Your task to perform on an android device: install app "eBay: The shopping marketplace" Image 0: 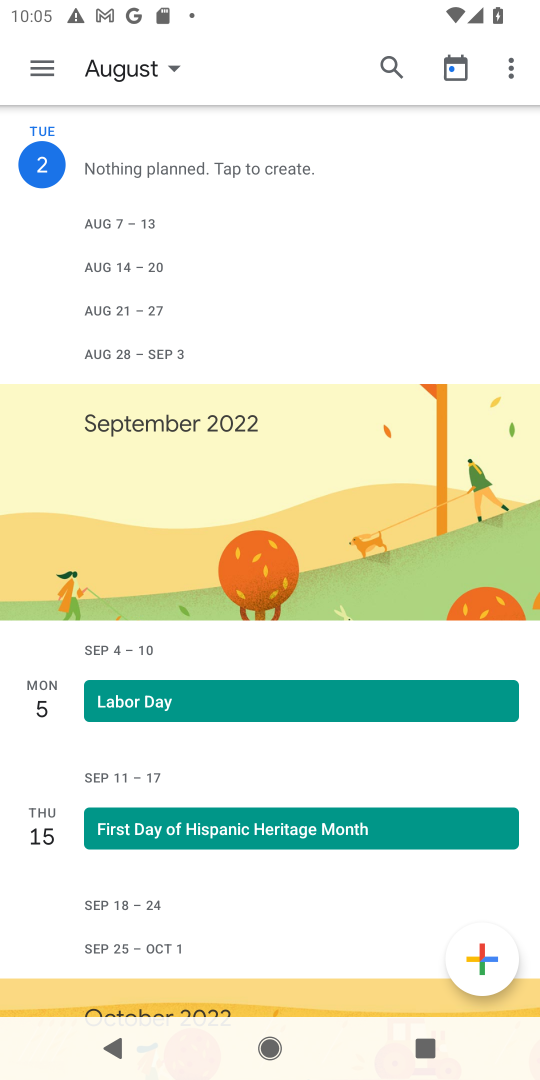
Step 0: press home button
Your task to perform on an android device: install app "eBay: The shopping marketplace" Image 1: 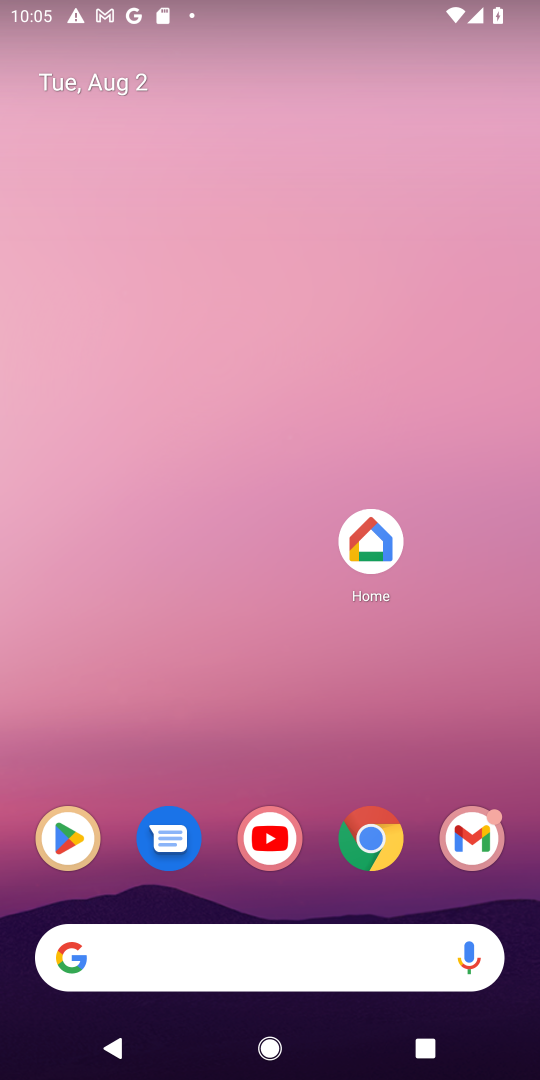
Step 1: drag from (288, 763) to (299, 82)
Your task to perform on an android device: install app "eBay: The shopping marketplace" Image 2: 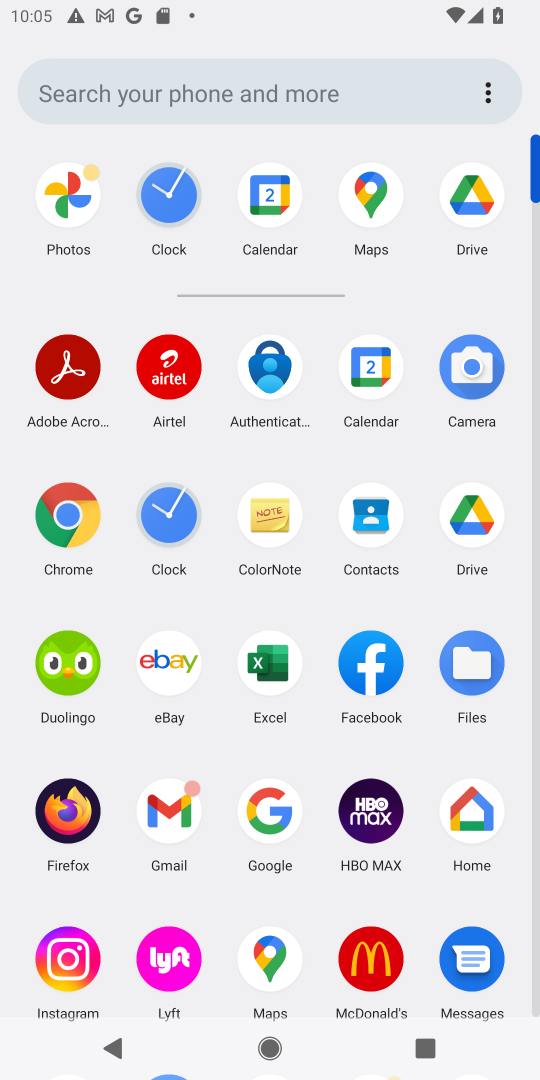
Step 2: drag from (210, 893) to (210, 487)
Your task to perform on an android device: install app "eBay: The shopping marketplace" Image 3: 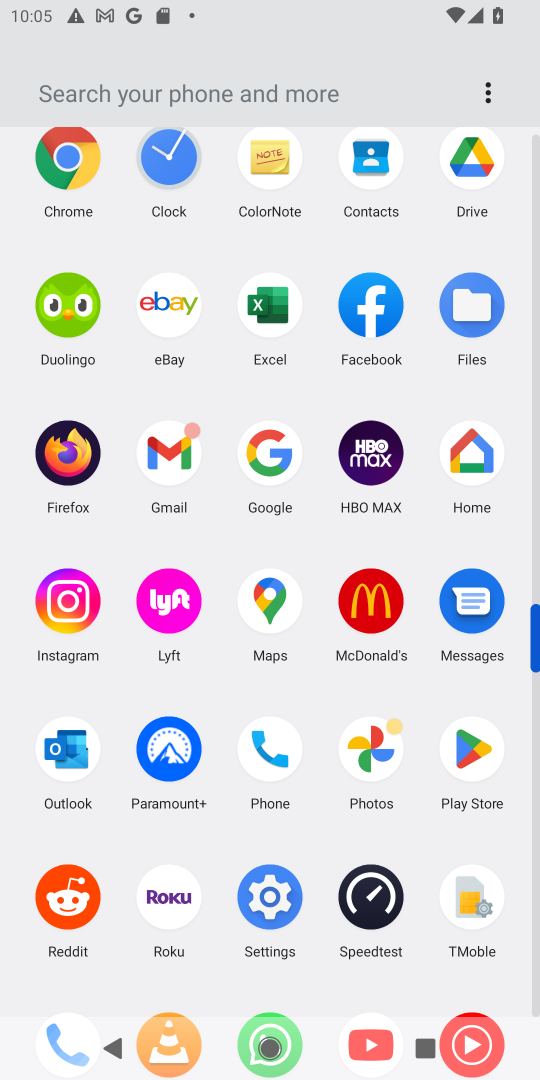
Step 3: click (470, 748)
Your task to perform on an android device: install app "eBay: The shopping marketplace" Image 4: 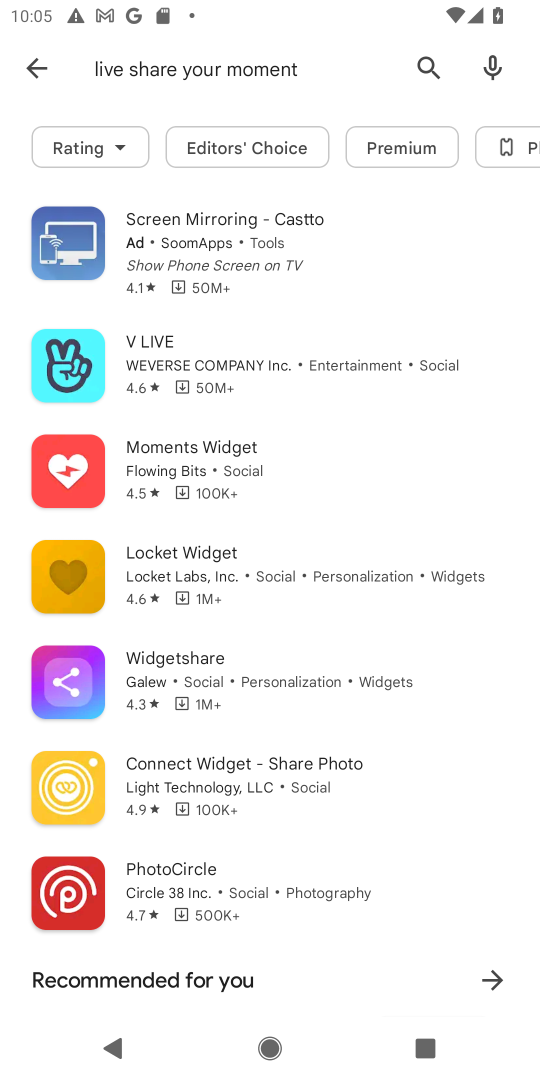
Step 4: click (426, 69)
Your task to perform on an android device: install app "eBay: The shopping marketplace" Image 5: 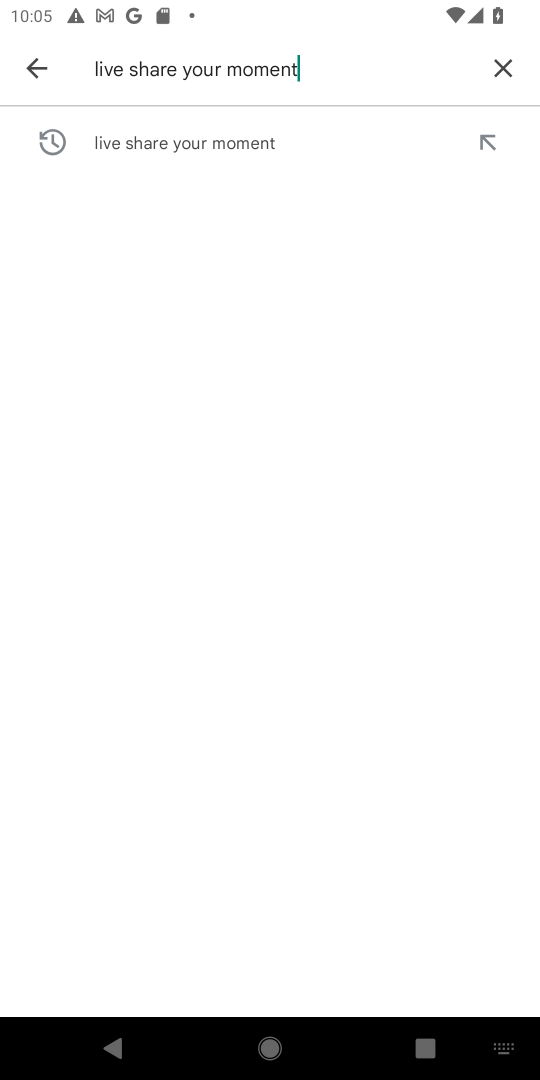
Step 5: click (502, 62)
Your task to perform on an android device: install app "eBay: The shopping marketplace" Image 6: 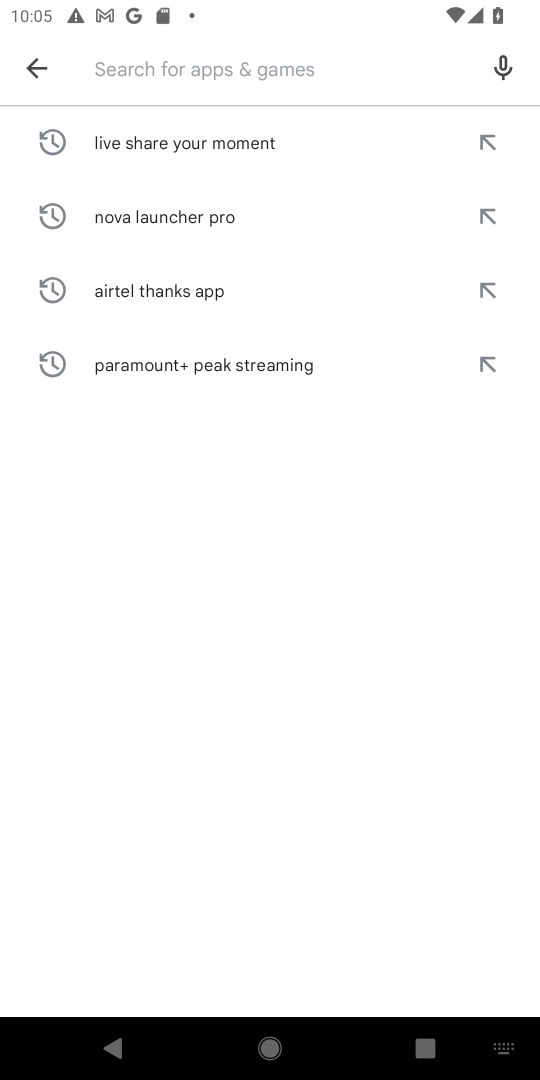
Step 6: type "eBay: The shopping marketplace"
Your task to perform on an android device: install app "eBay: The shopping marketplace" Image 7: 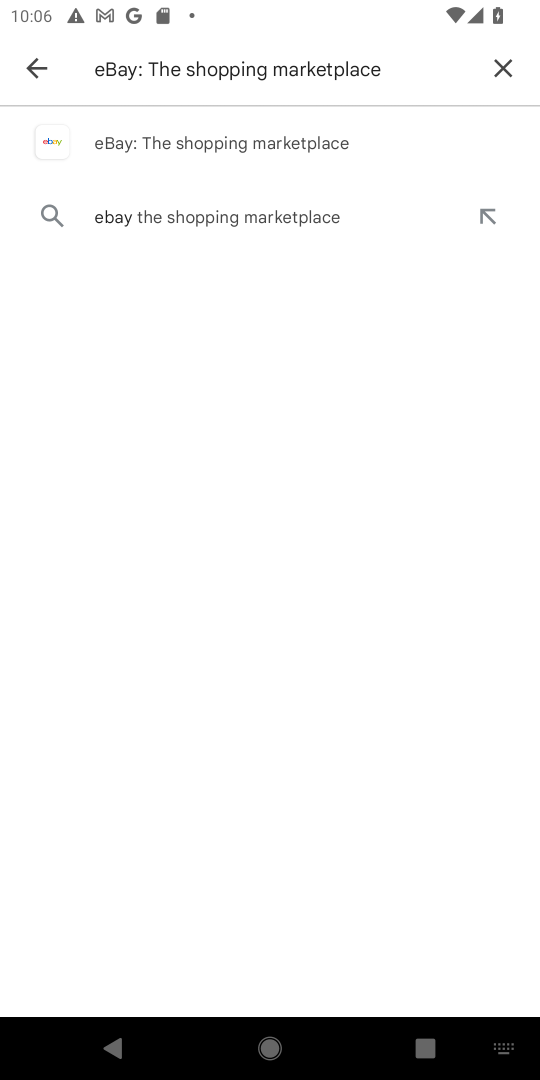
Step 7: click (343, 148)
Your task to perform on an android device: install app "eBay: The shopping marketplace" Image 8: 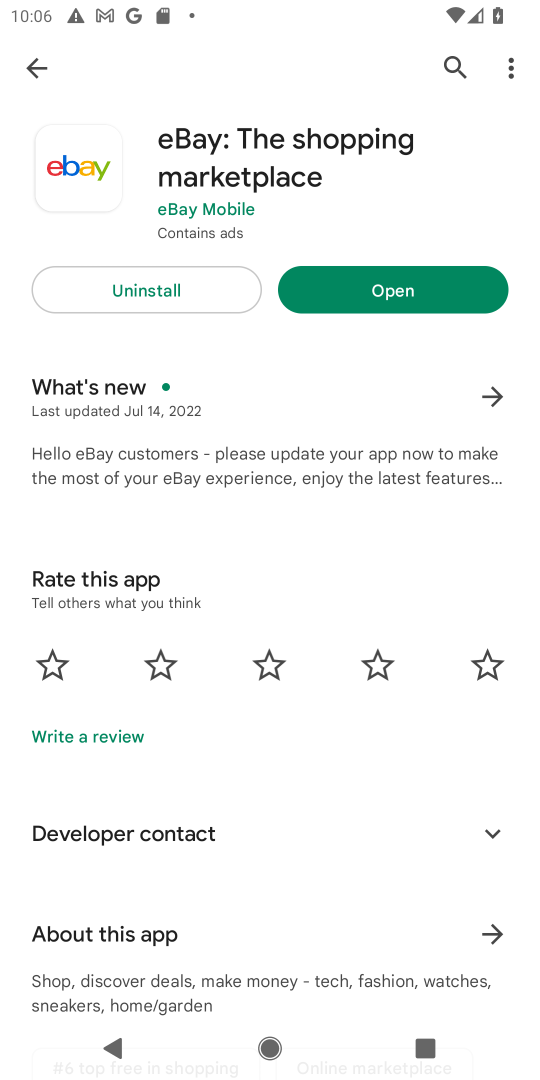
Step 8: task complete